Your task to perform on an android device: Show me the alarms in the clock app Image 0: 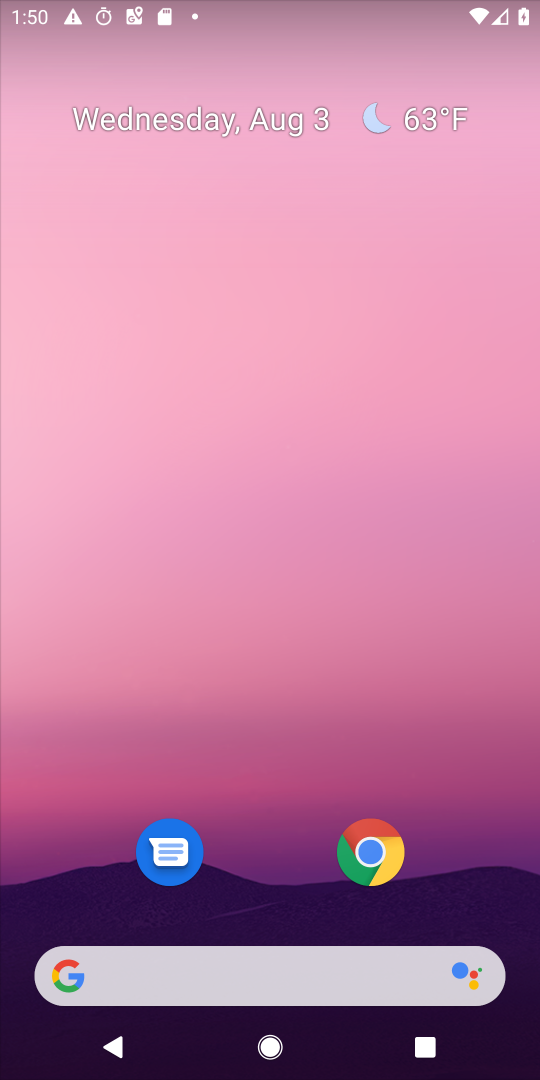
Step 0: drag from (280, 772) to (26, 25)
Your task to perform on an android device: Show me the alarms in the clock app Image 1: 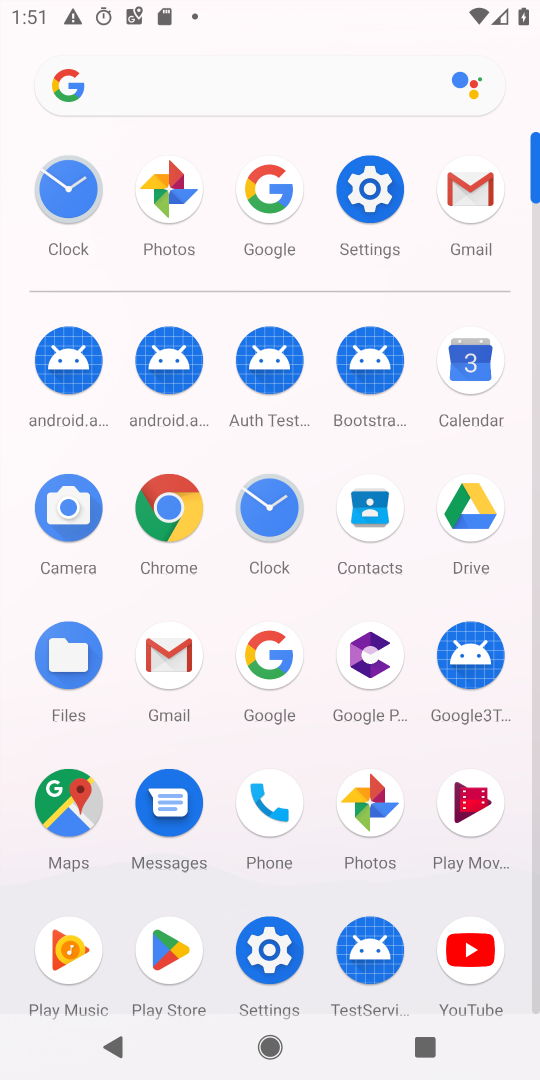
Step 1: click (271, 541)
Your task to perform on an android device: Show me the alarms in the clock app Image 2: 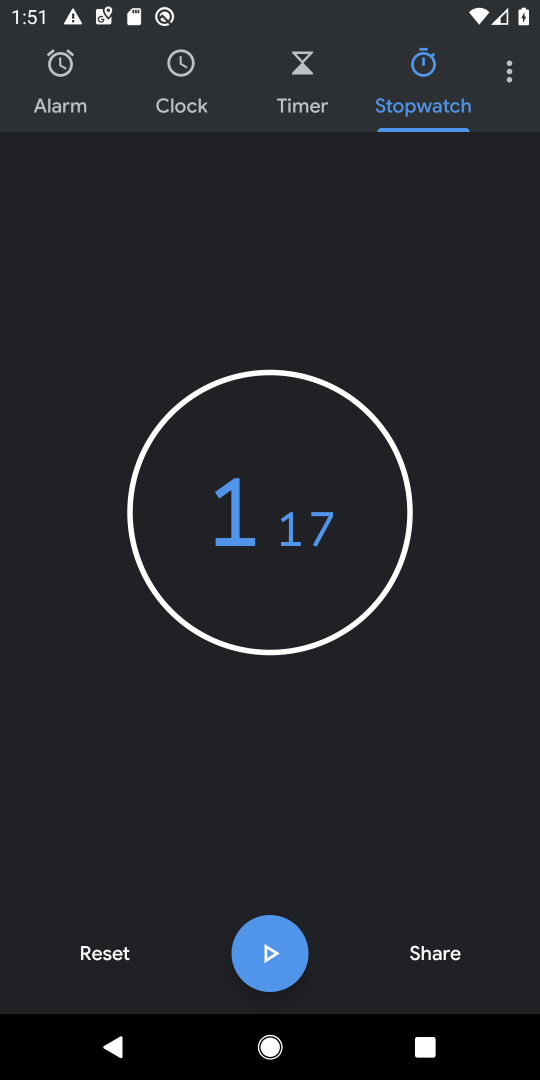
Step 2: click (47, 94)
Your task to perform on an android device: Show me the alarms in the clock app Image 3: 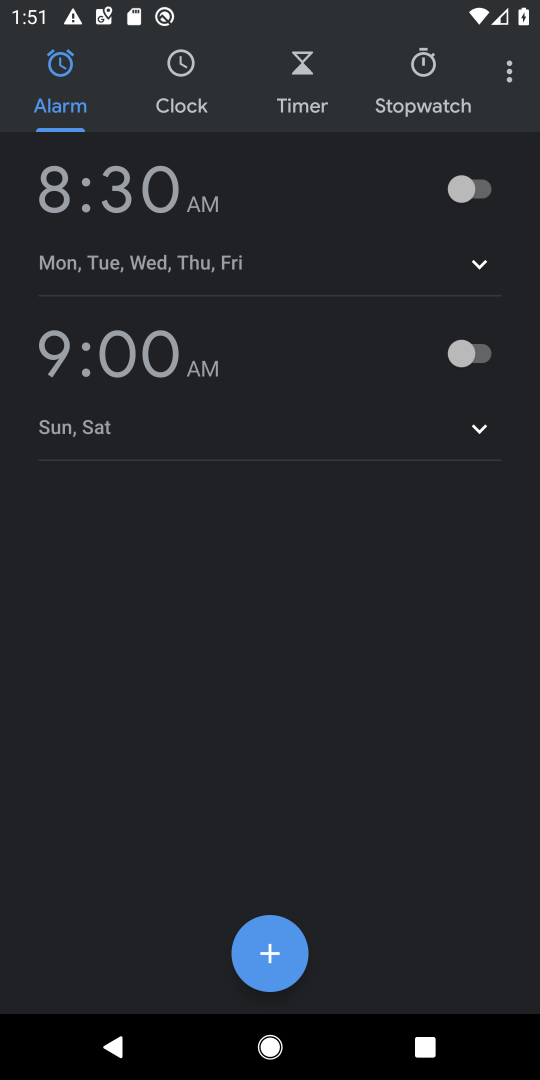
Step 3: task complete